Your task to perform on an android device: turn smart compose on in the gmail app Image 0: 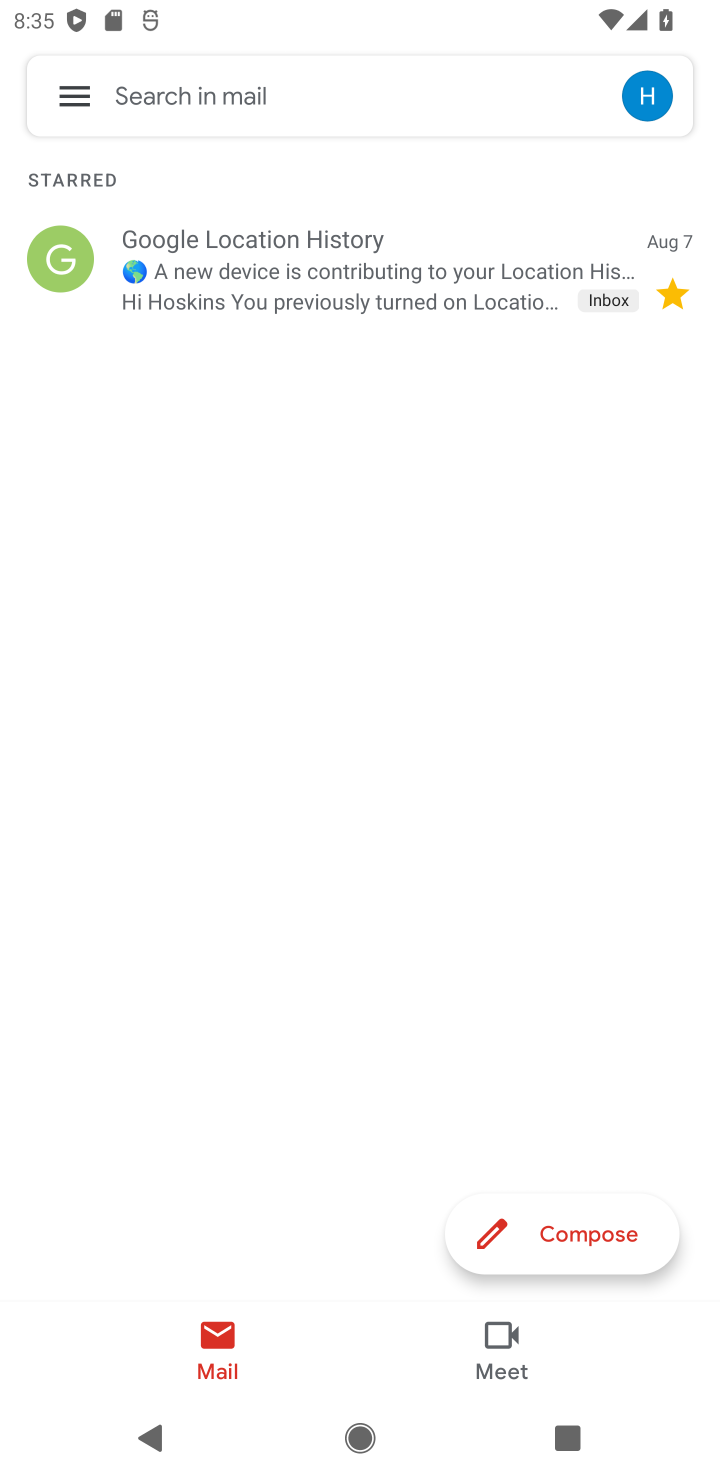
Step 0: press home button
Your task to perform on an android device: turn smart compose on in the gmail app Image 1: 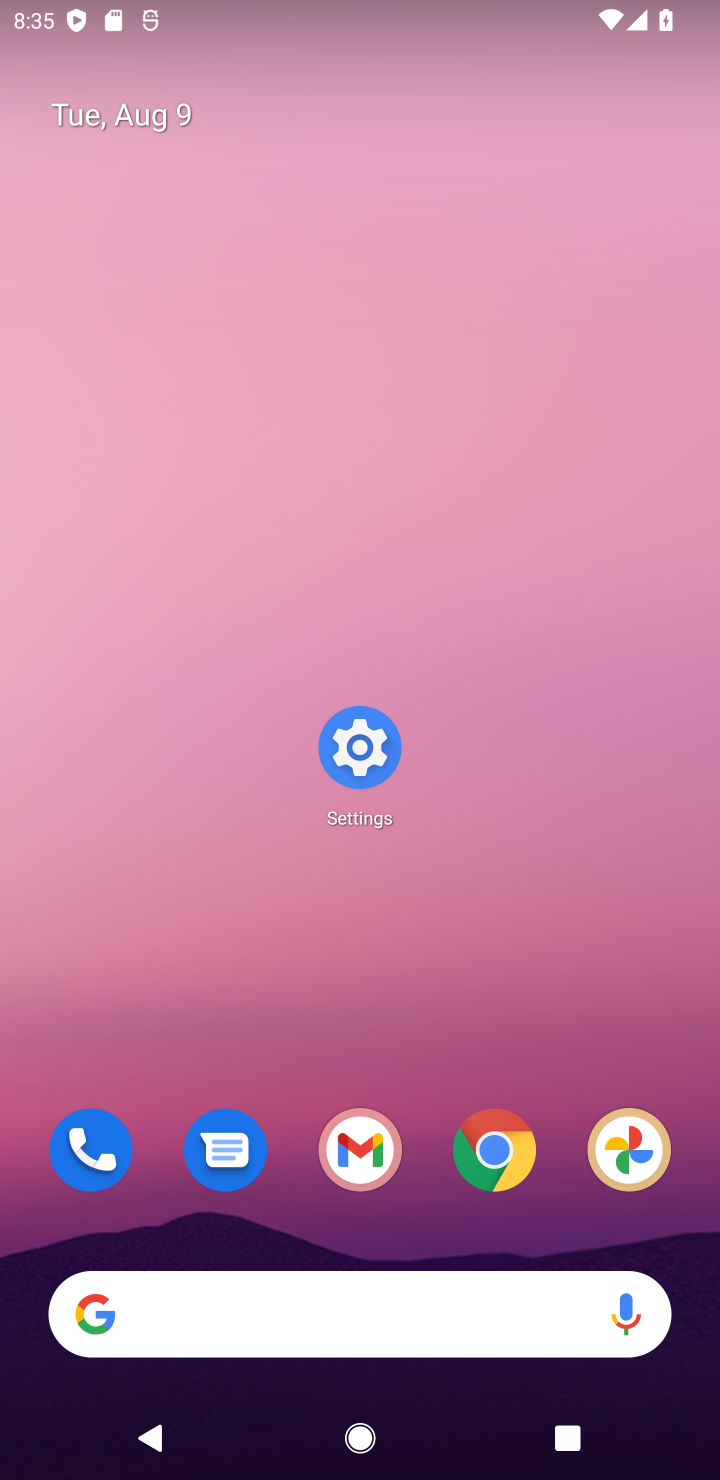
Step 1: click (362, 1145)
Your task to perform on an android device: turn smart compose on in the gmail app Image 2: 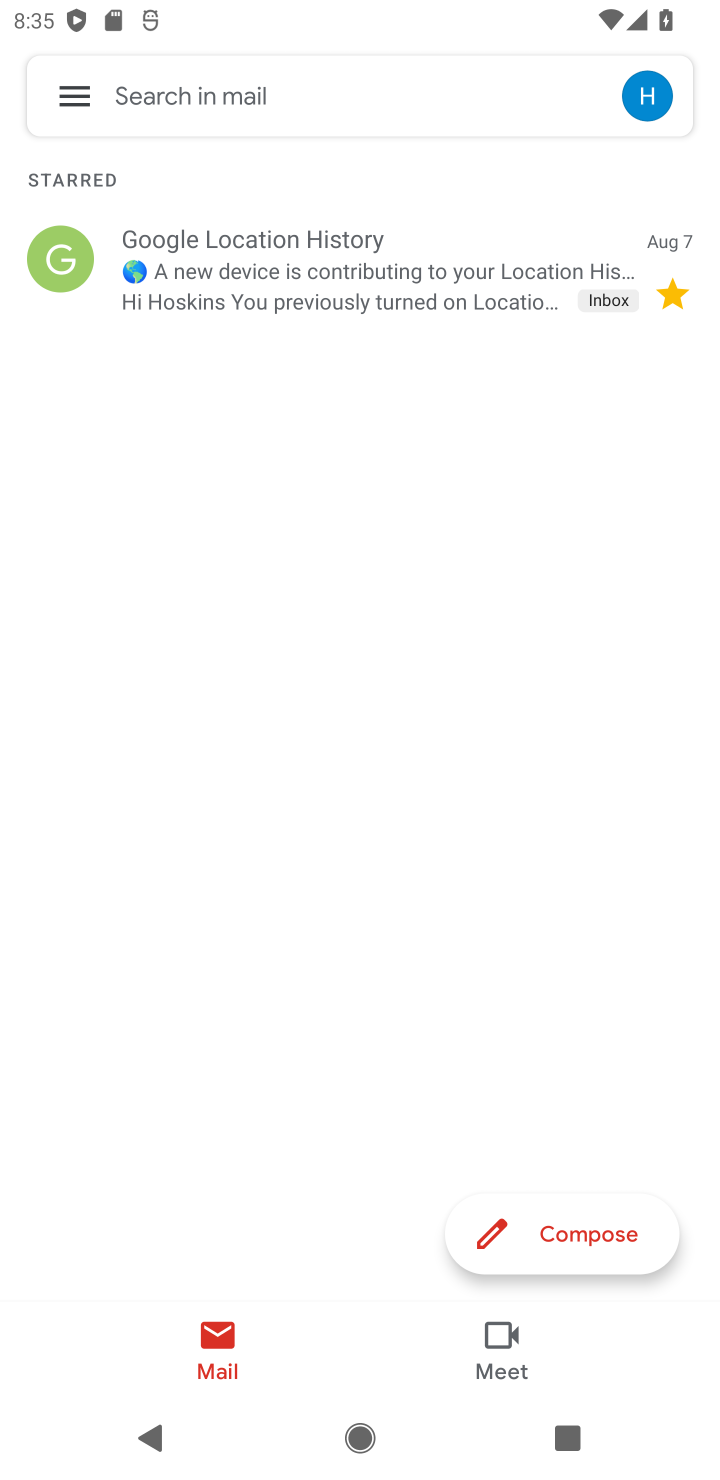
Step 2: click (69, 91)
Your task to perform on an android device: turn smart compose on in the gmail app Image 3: 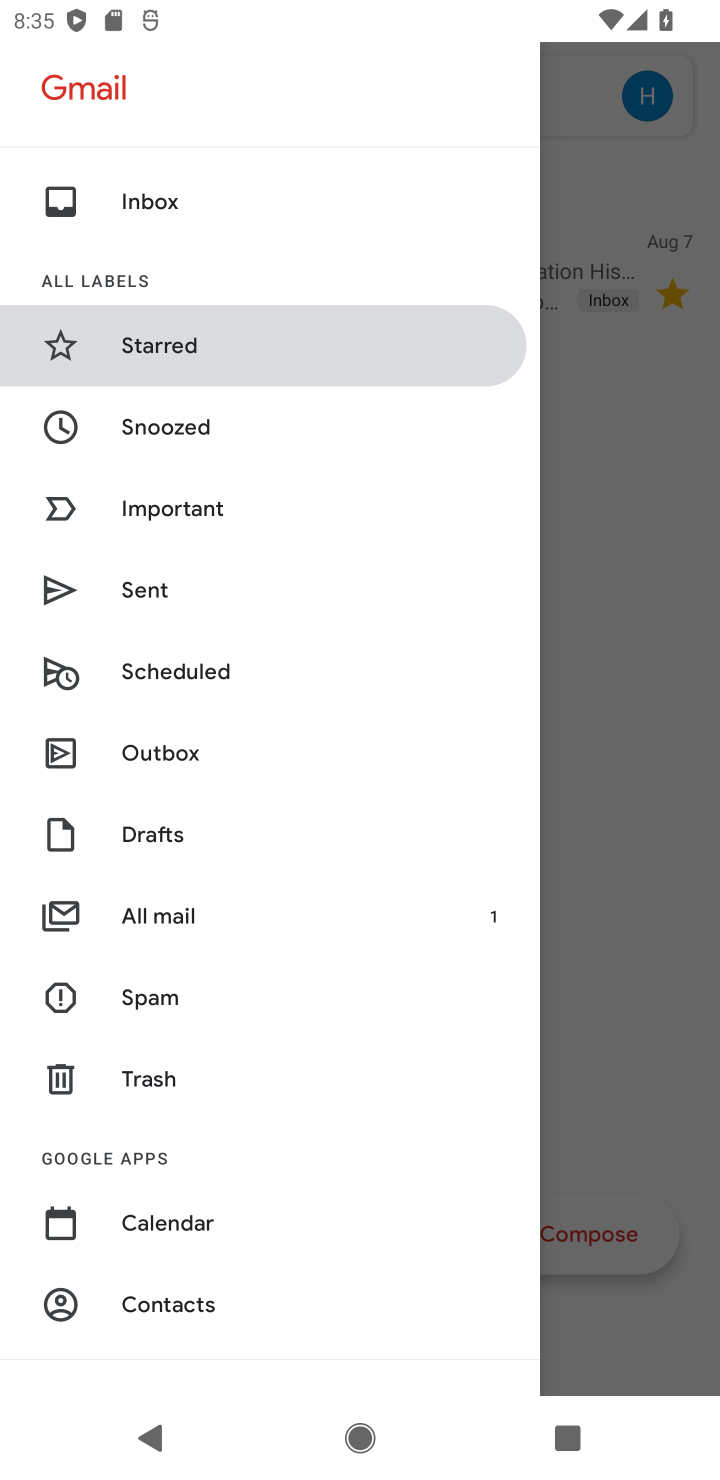
Step 3: drag from (221, 1259) to (392, 150)
Your task to perform on an android device: turn smart compose on in the gmail app Image 4: 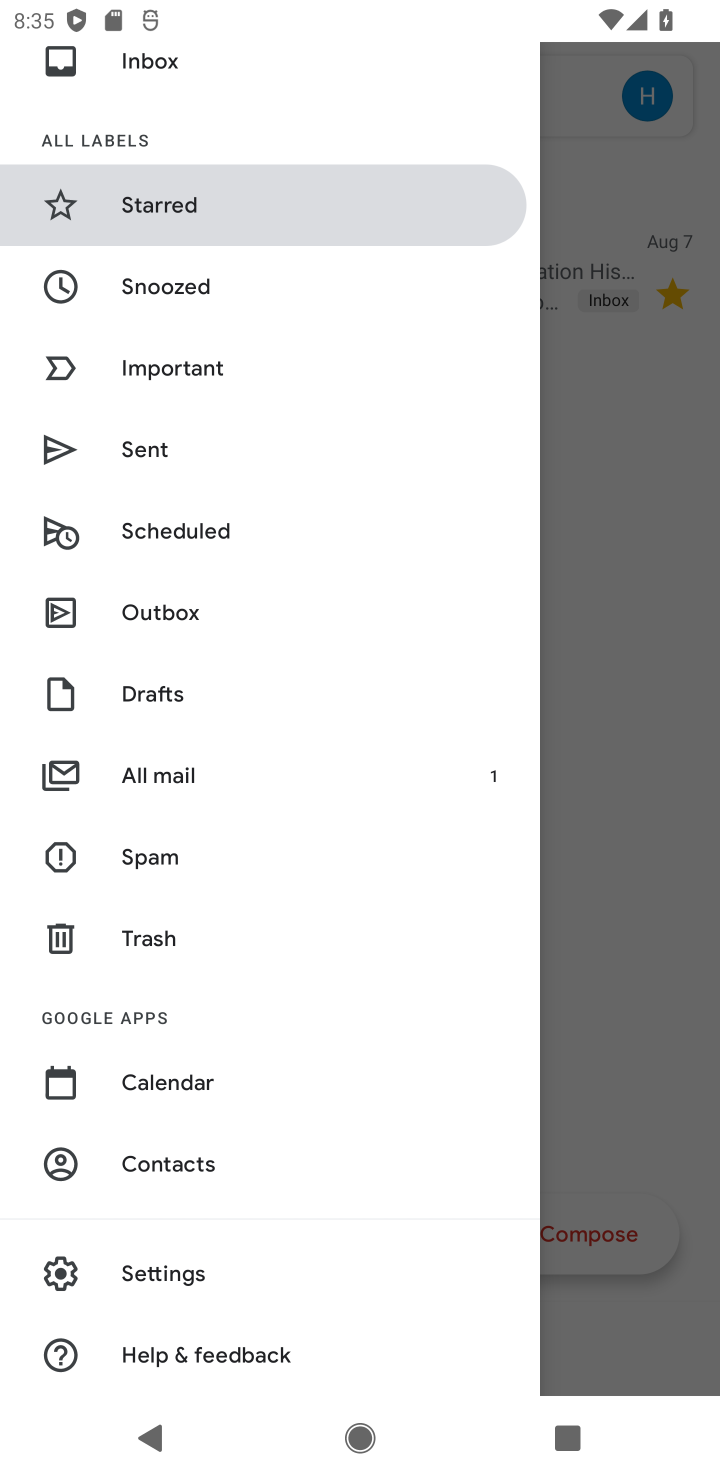
Step 4: click (185, 1282)
Your task to perform on an android device: turn smart compose on in the gmail app Image 5: 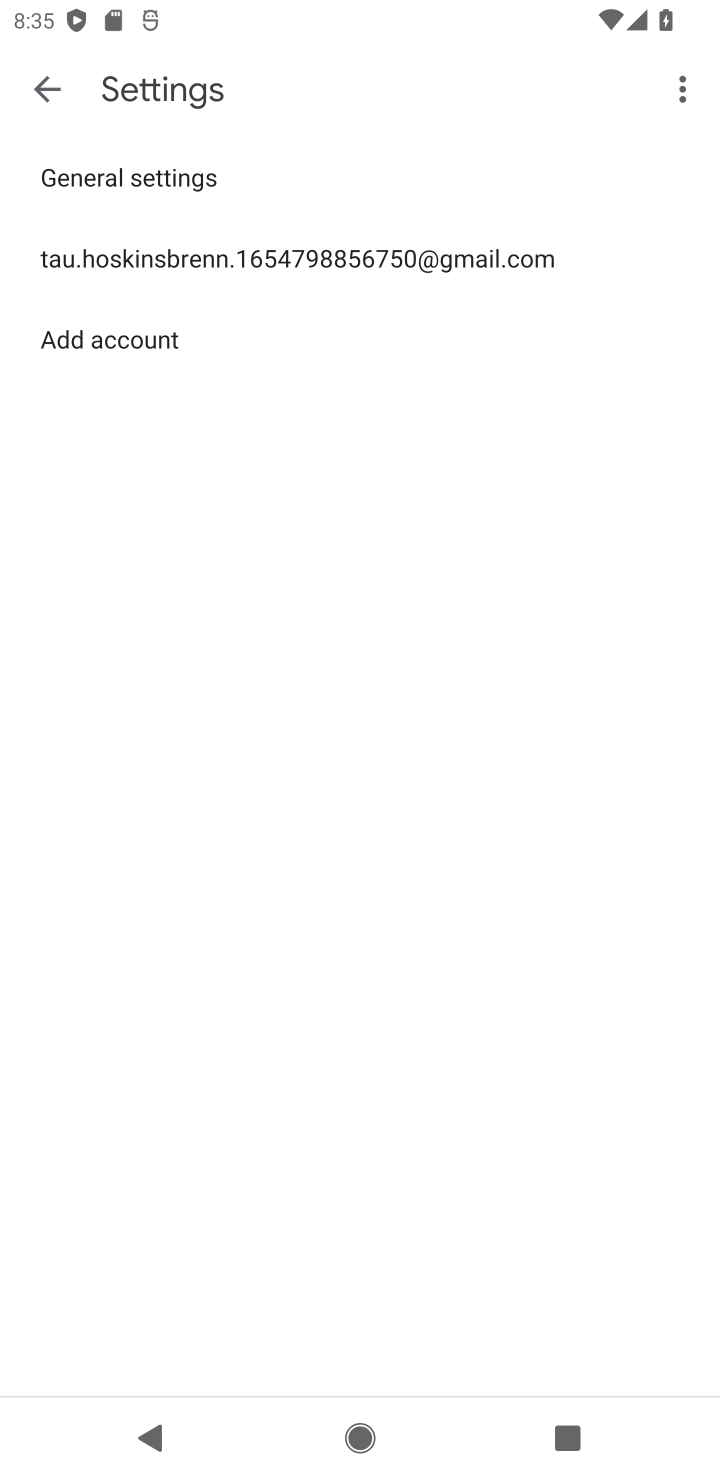
Step 5: click (393, 246)
Your task to perform on an android device: turn smart compose on in the gmail app Image 6: 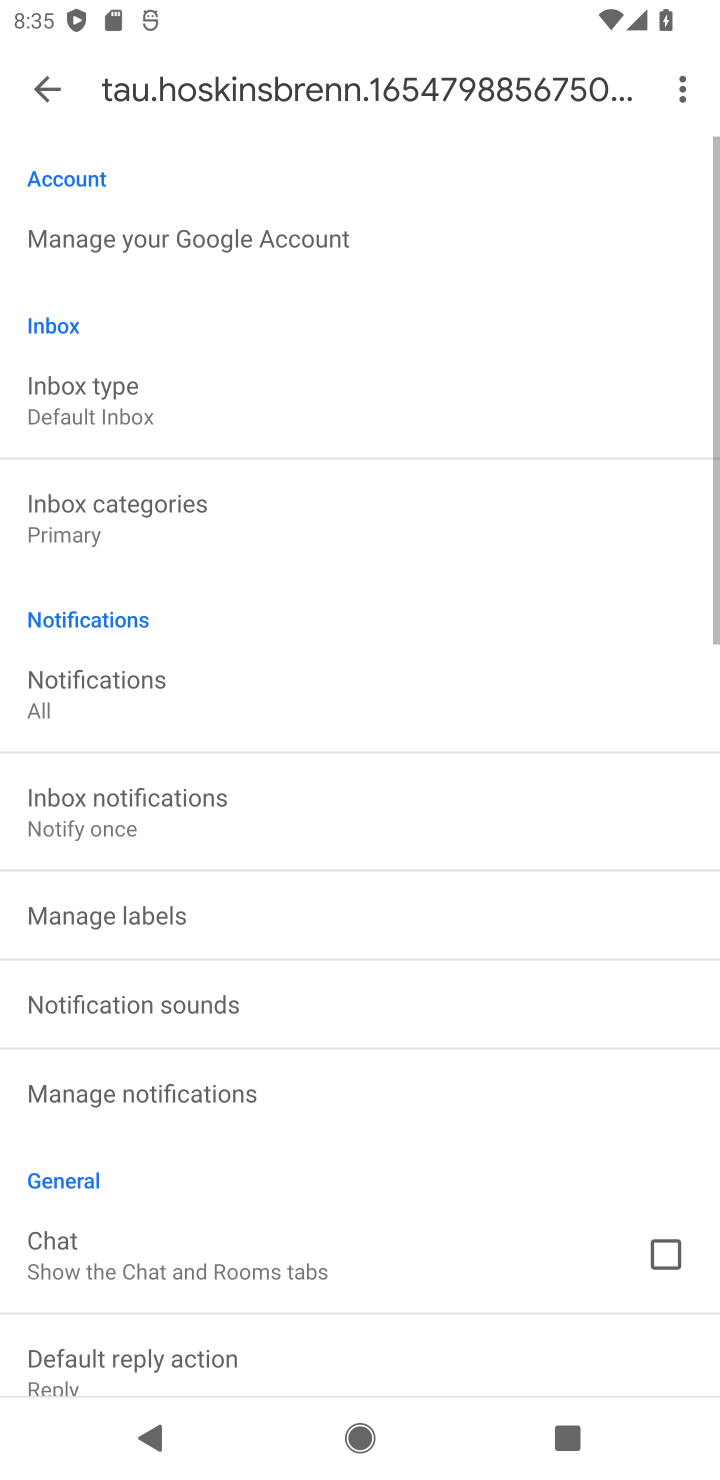
Step 6: task complete